Your task to perform on an android device: toggle translation in the chrome app Image 0: 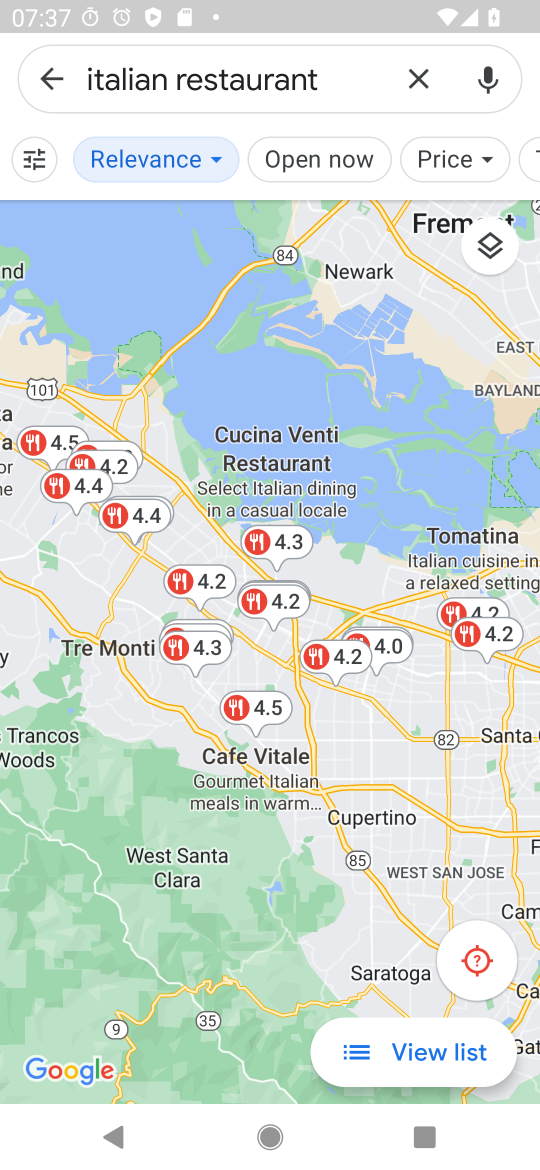
Step 0: press home button
Your task to perform on an android device: toggle translation in the chrome app Image 1: 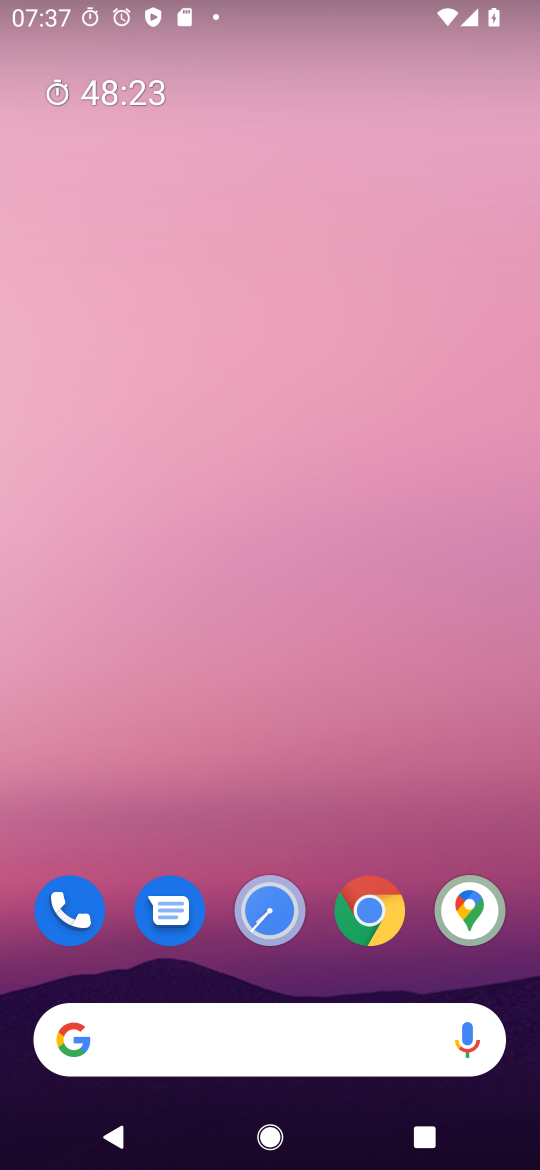
Step 1: drag from (247, 1031) to (241, 128)
Your task to perform on an android device: toggle translation in the chrome app Image 2: 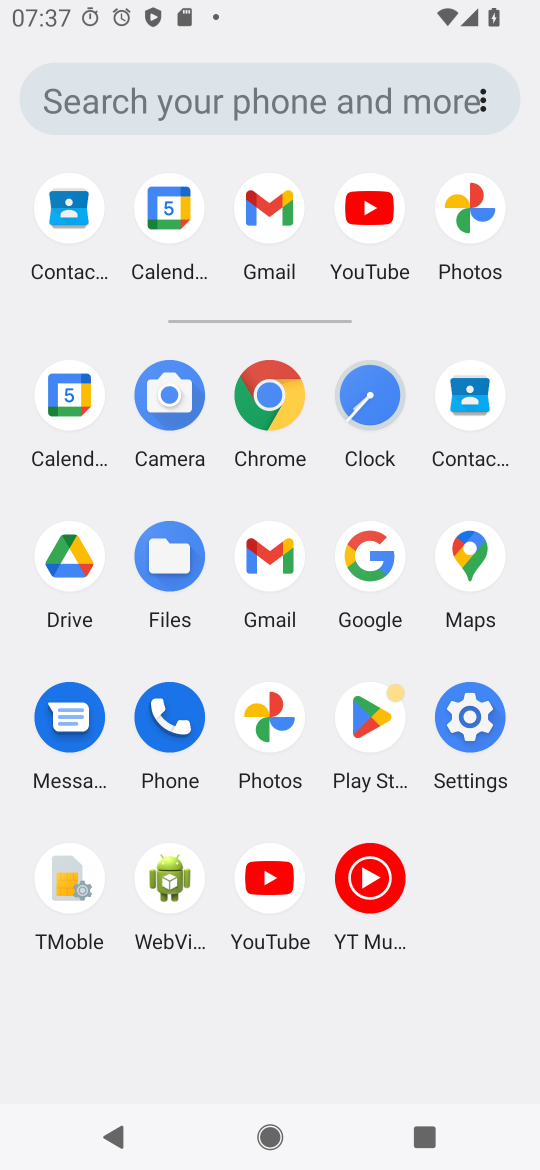
Step 2: click (274, 379)
Your task to perform on an android device: toggle translation in the chrome app Image 3: 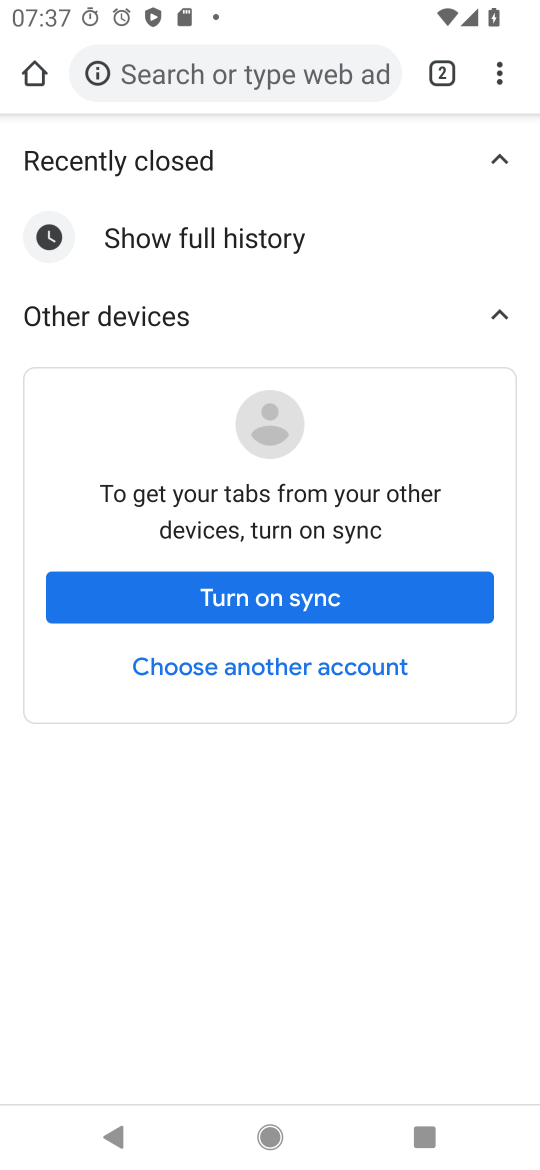
Step 3: click (491, 71)
Your task to perform on an android device: toggle translation in the chrome app Image 4: 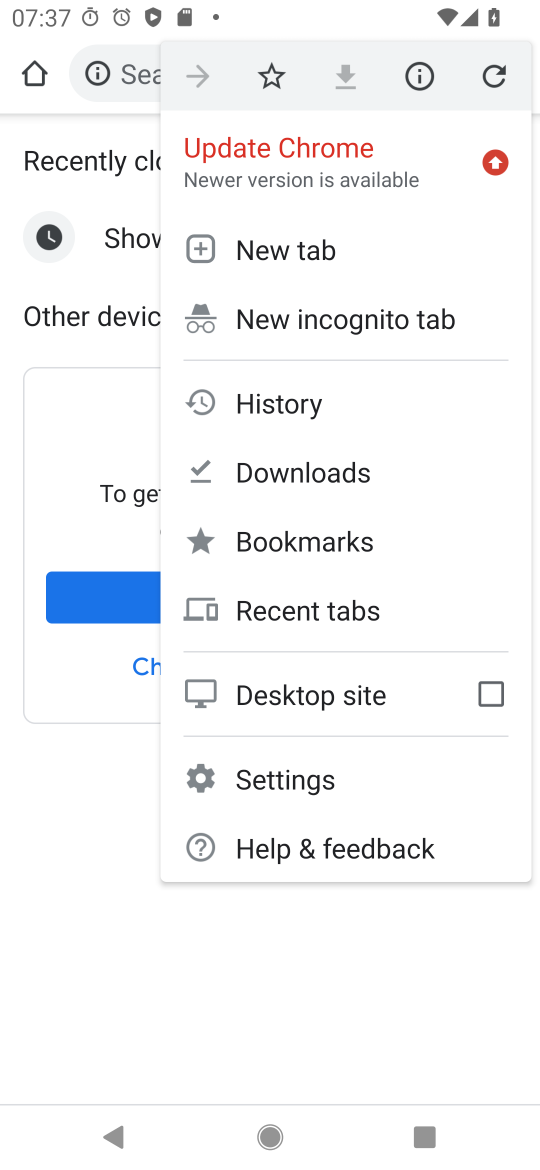
Step 4: click (283, 763)
Your task to perform on an android device: toggle translation in the chrome app Image 5: 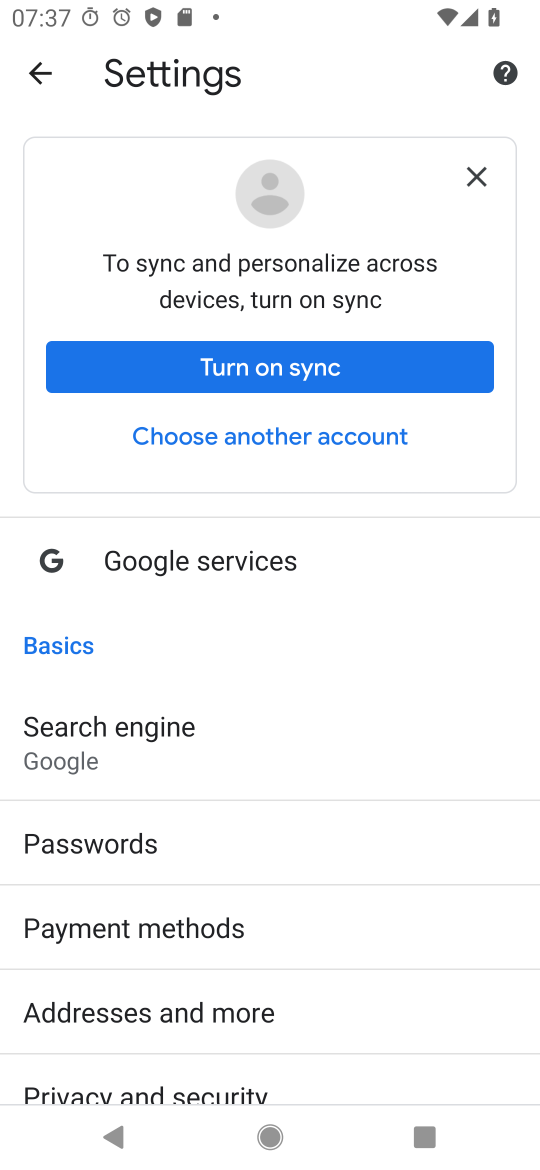
Step 5: drag from (198, 872) to (322, 240)
Your task to perform on an android device: toggle translation in the chrome app Image 6: 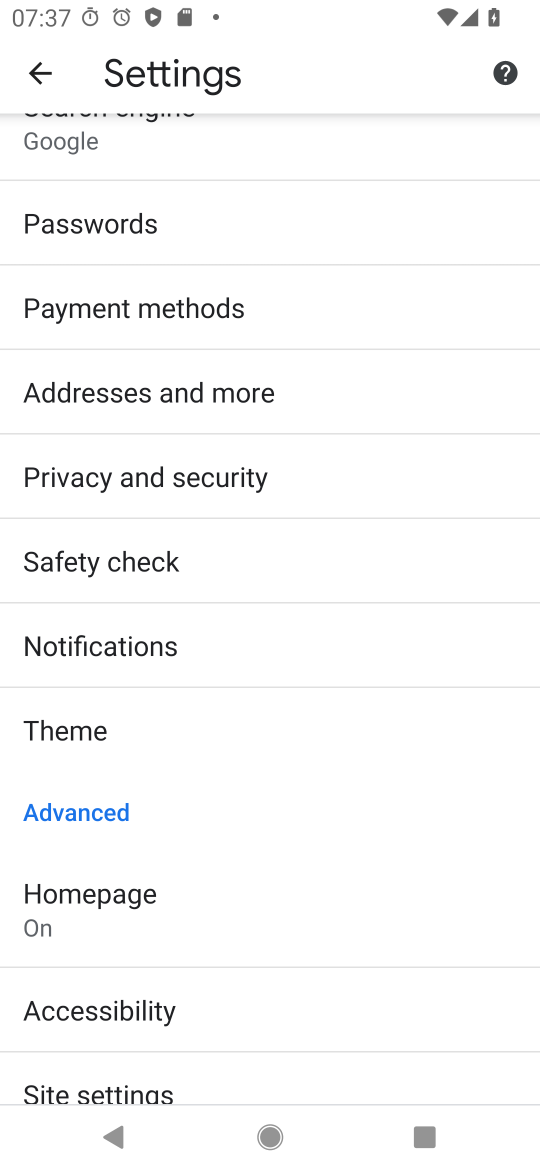
Step 6: drag from (183, 1005) to (430, 1113)
Your task to perform on an android device: toggle translation in the chrome app Image 7: 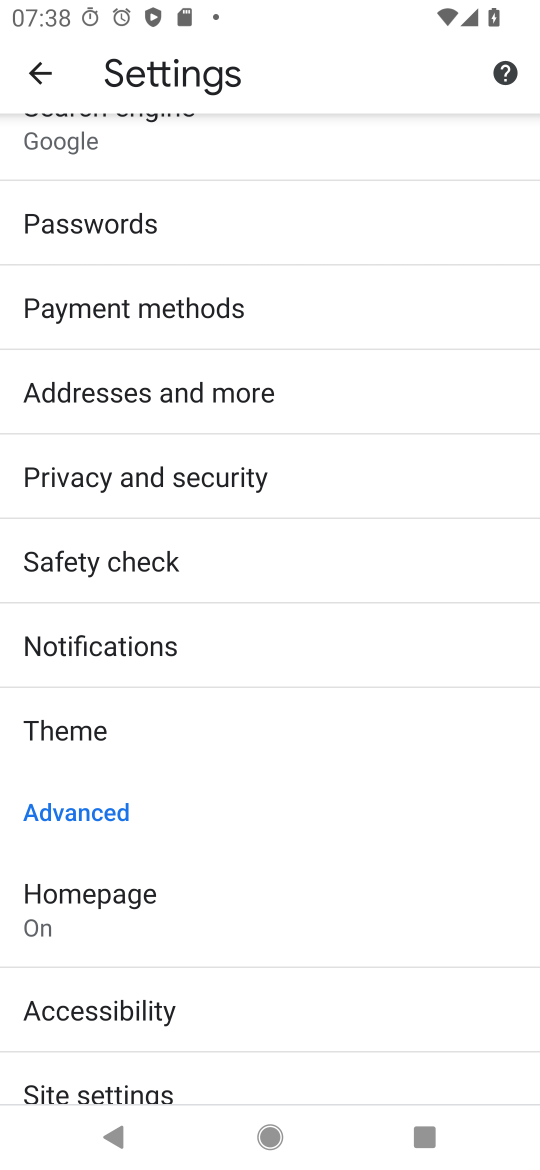
Step 7: drag from (290, 1047) to (152, 40)
Your task to perform on an android device: toggle translation in the chrome app Image 8: 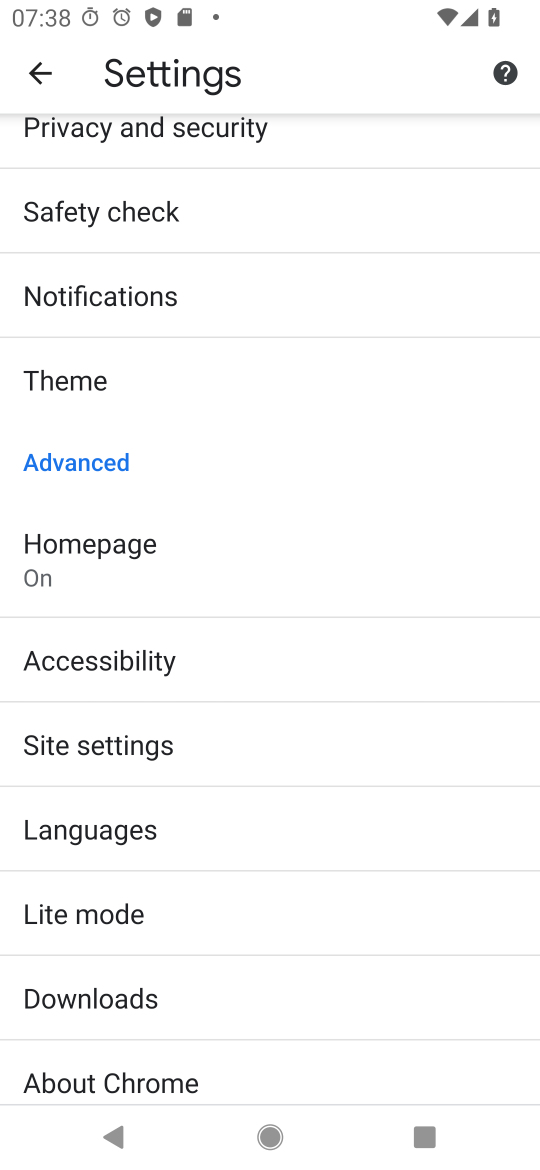
Step 8: click (92, 807)
Your task to perform on an android device: toggle translation in the chrome app Image 9: 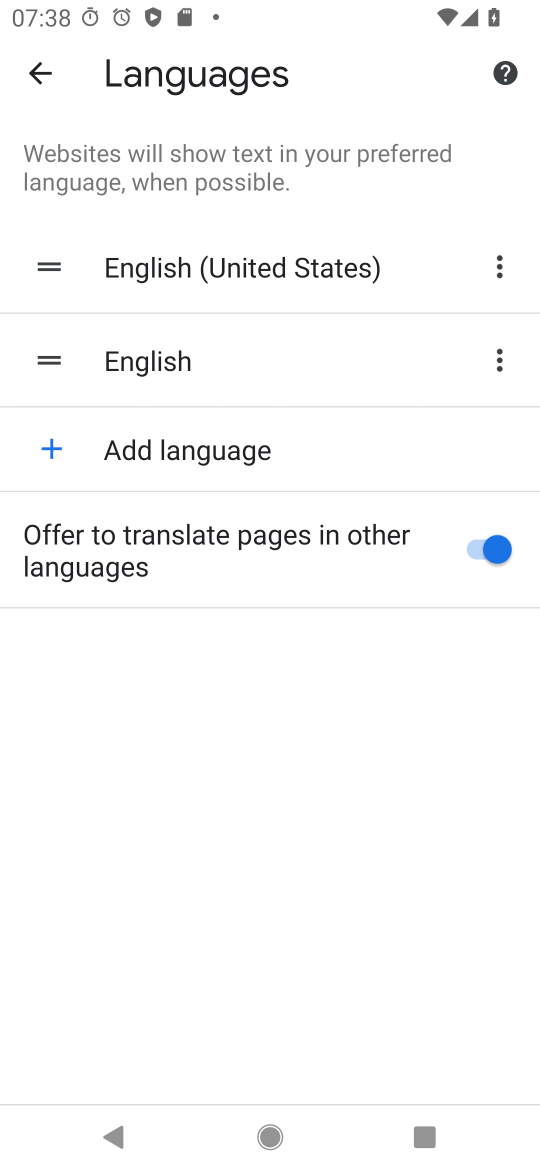
Step 9: click (498, 536)
Your task to perform on an android device: toggle translation in the chrome app Image 10: 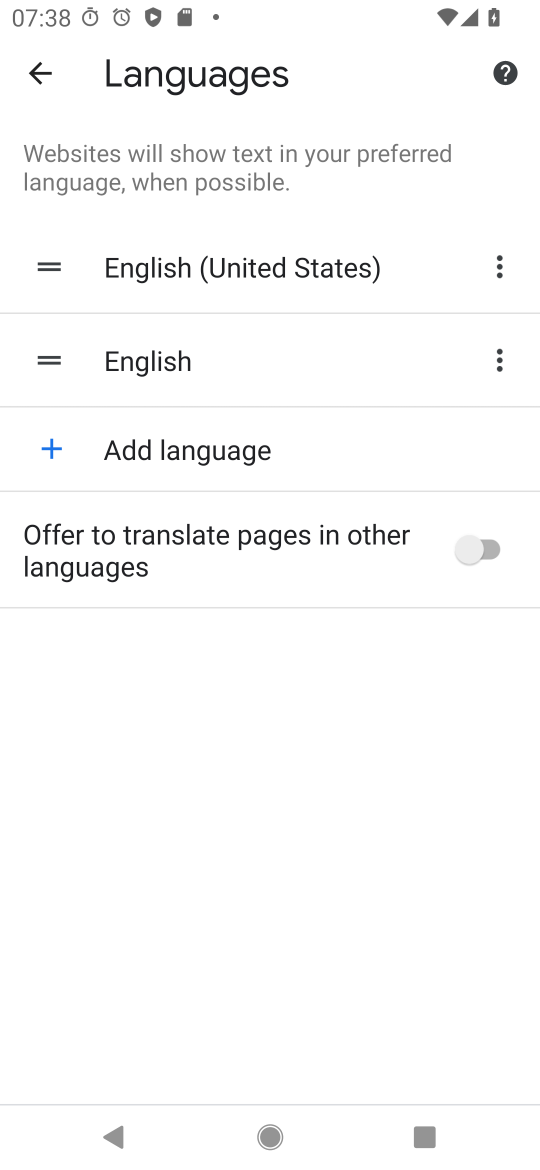
Step 10: task complete